Your task to perform on an android device: Go to sound settings Image 0: 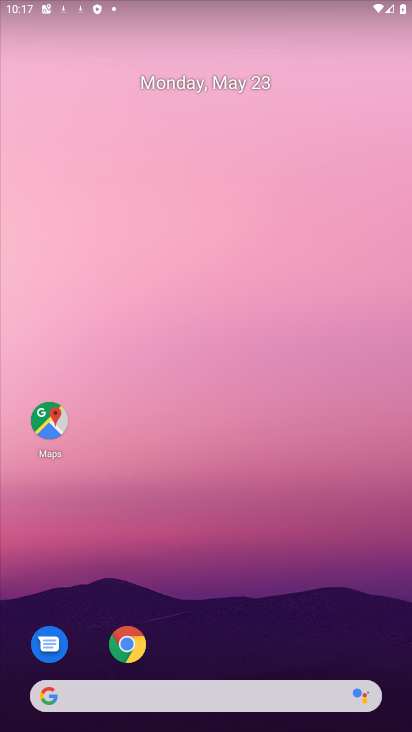
Step 0: press home button
Your task to perform on an android device: Go to sound settings Image 1: 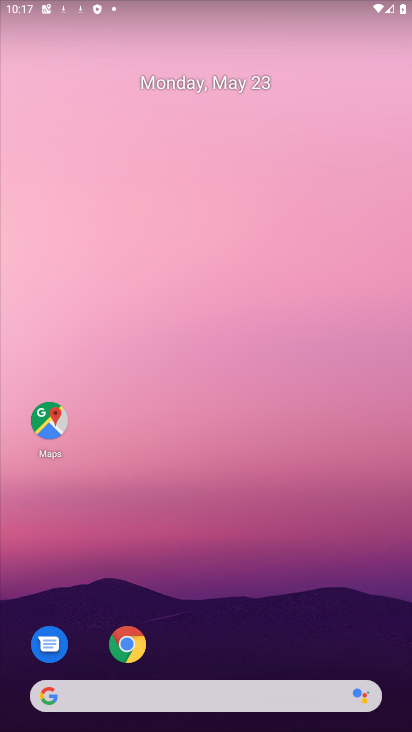
Step 1: drag from (265, 717) to (149, 33)
Your task to perform on an android device: Go to sound settings Image 2: 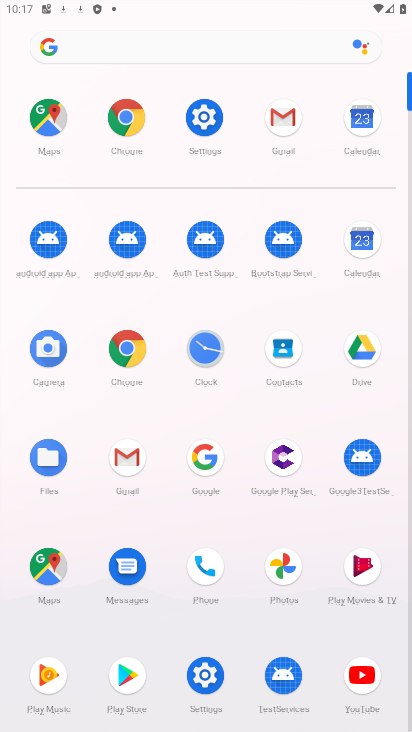
Step 2: click (200, 127)
Your task to perform on an android device: Go to sound settings Image 3: 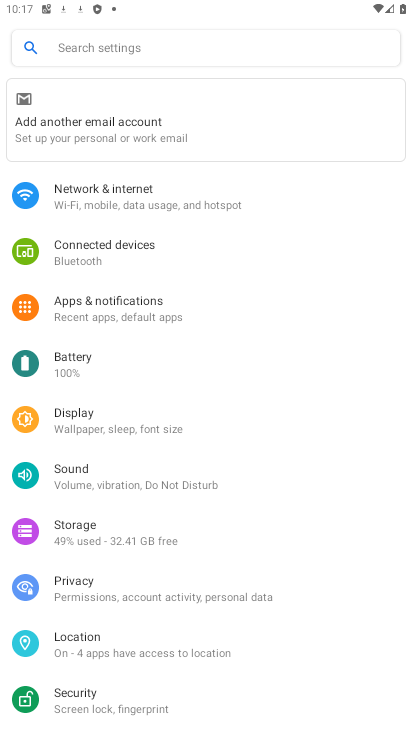
Step 3: click (125, 52)
Your task to perform on an android device: Go to sound settings Image 4: 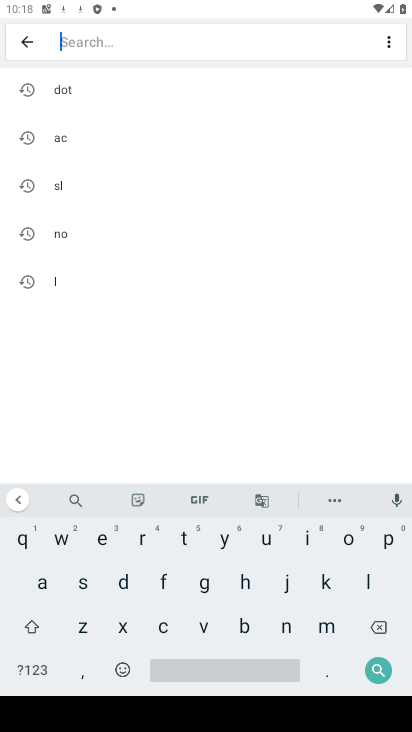
Step 4: click (85, 582)
Your task to perform on an android device: Go to sound settings Image 5: 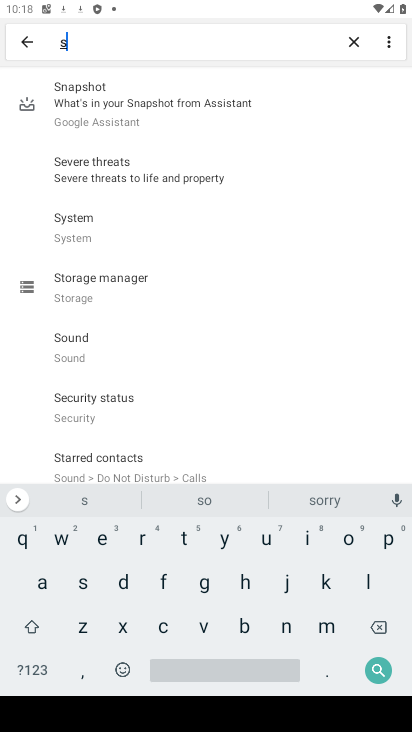
Step 5: click (352, 540)
Your task to perform on an android device: Go to sound settings Image 6: 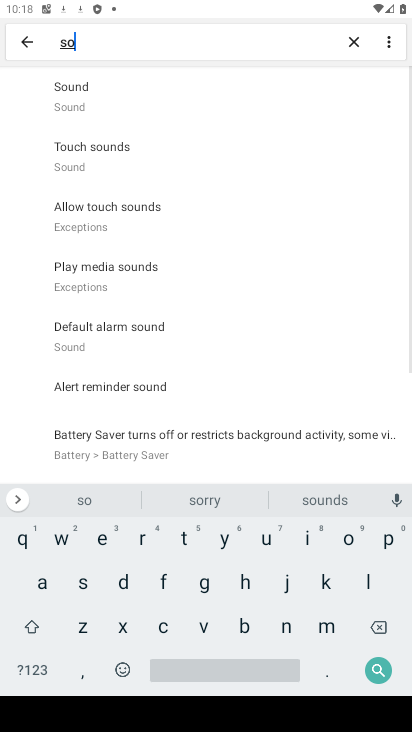
Step 6: click (145, 100)
Your task to perform on an android device: Go to sound settings Image 7: 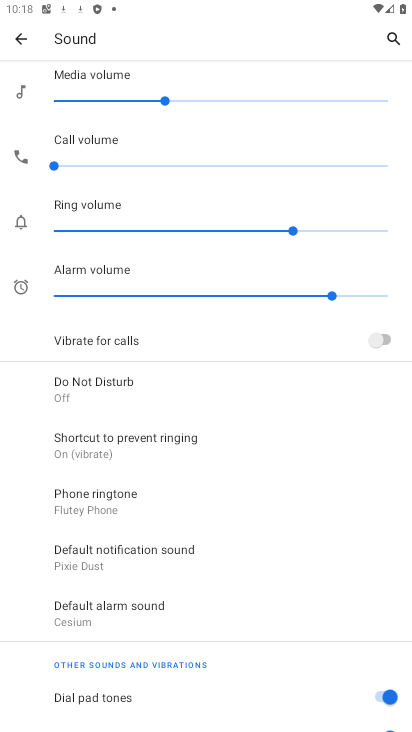
Step 7: task complete